Your task to perform on an android device: Open Youtube and go to the subscriptions tab Image 0: 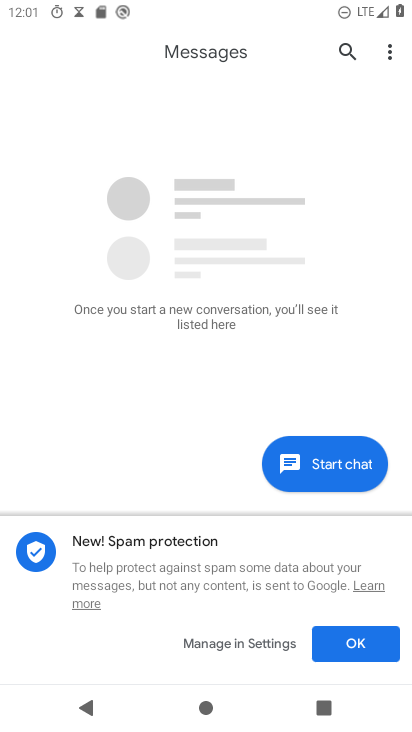
Step 0: press home button
Your task to perform on an android device: Open Youtube and go to the subscriptions tab Image 1: 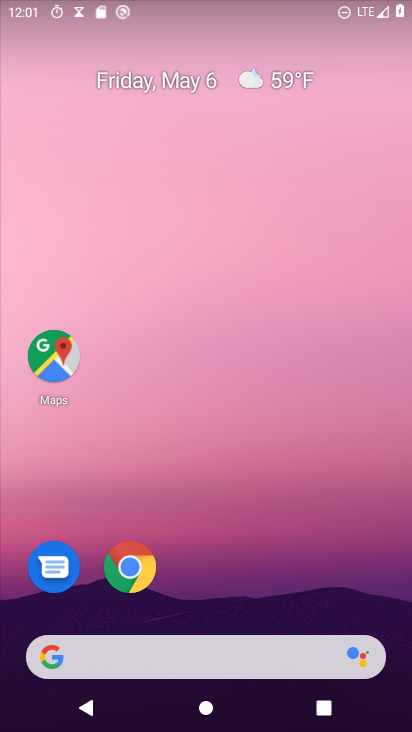
Step 1: drag from (312, 609) to (271, 0)
Your task to perform on an android device: Open Youtube and go to the subscriptions tab Image 2: 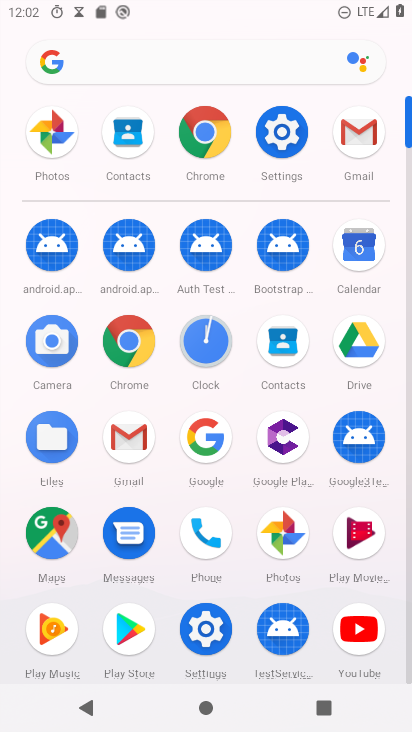
Step 2: click (355, 630)
Your task to perform on an android device: Open Youtube and go to the subscriptions tab Image 3: 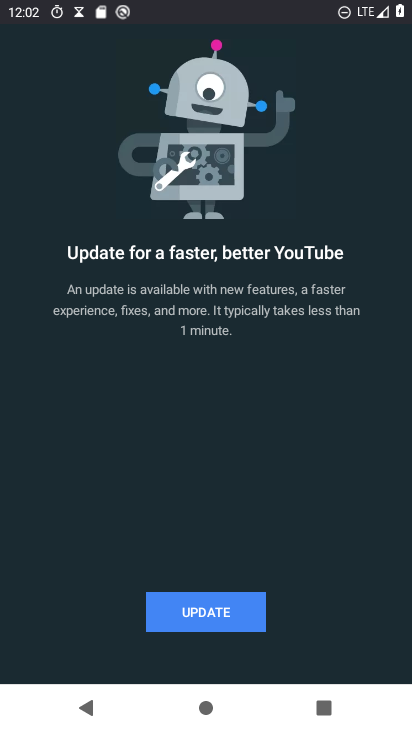
Step 3: click (218, 624)
Your task to perform on an android device: Open Youtube and go to the subscriptions tab Image 4: 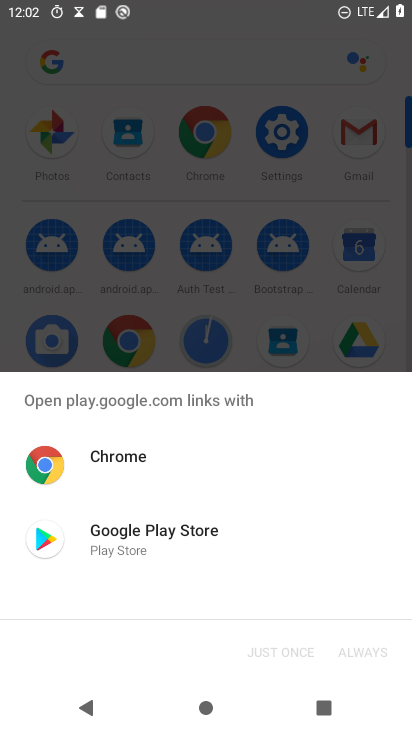
Step 4: click (139, 547)
Your task to perform on an android device: Open Youtube and go to the subscriptions tab Image 5: 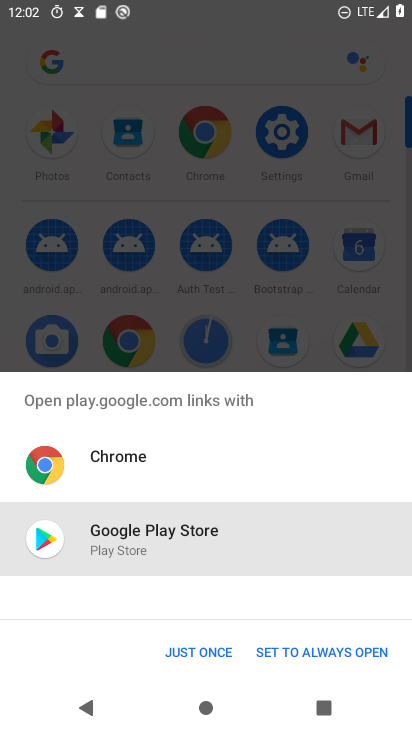
Step 5: click (197, 657)
Your task to perform on an android device: Open Youtube and go to the subscriptions tab Image 6: 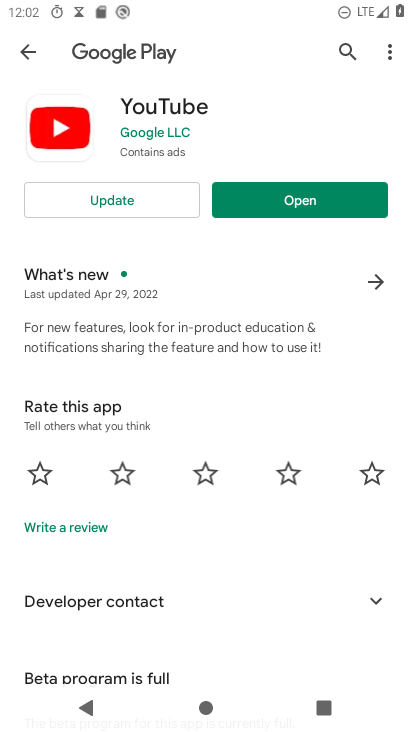
Step 6: click (137, 193)
Your task to perform on an android device: Open Youtube and go to the subscriptions tab Image 7: 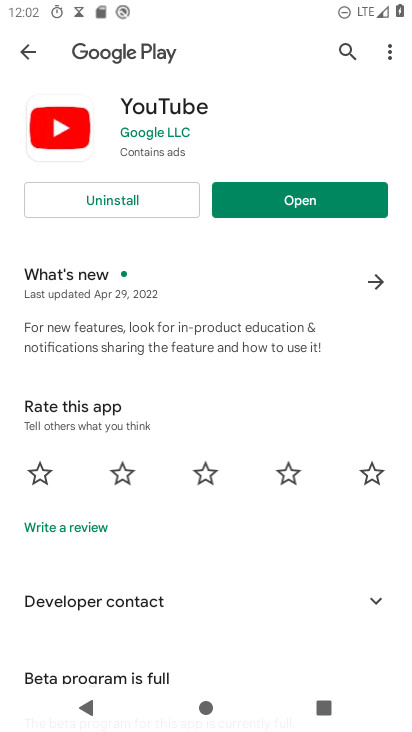
Step 7: click (257, 211)
Your task to perform on an android device: Open Youtube and go to the subscriptions tab Image 8: 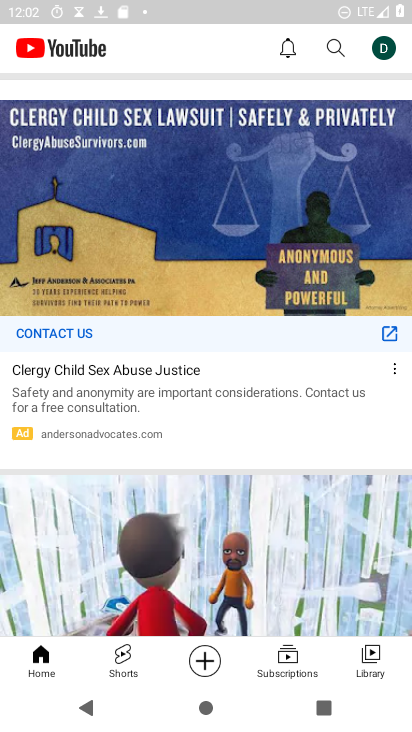
Step 8: click (280, 654)
Your task to perform on an android device: Open Youtube and go to the subscriptions tab Image 9: 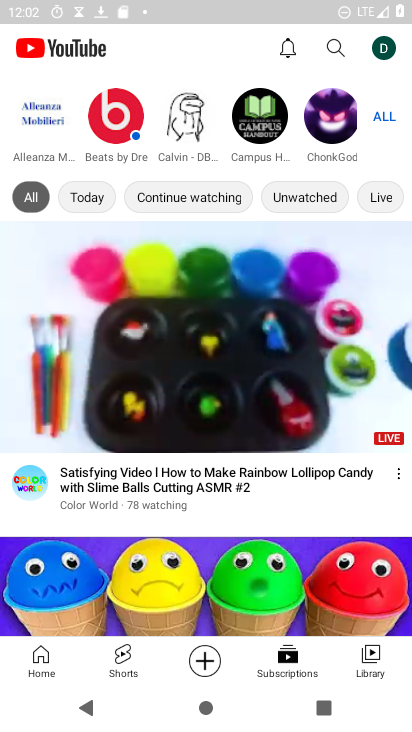
Step 9: task complete